Your task to perform on an android device: Show the shopping cart on costco. Add "acer nitro" to the cart on costco, then select checkout. Image 0: 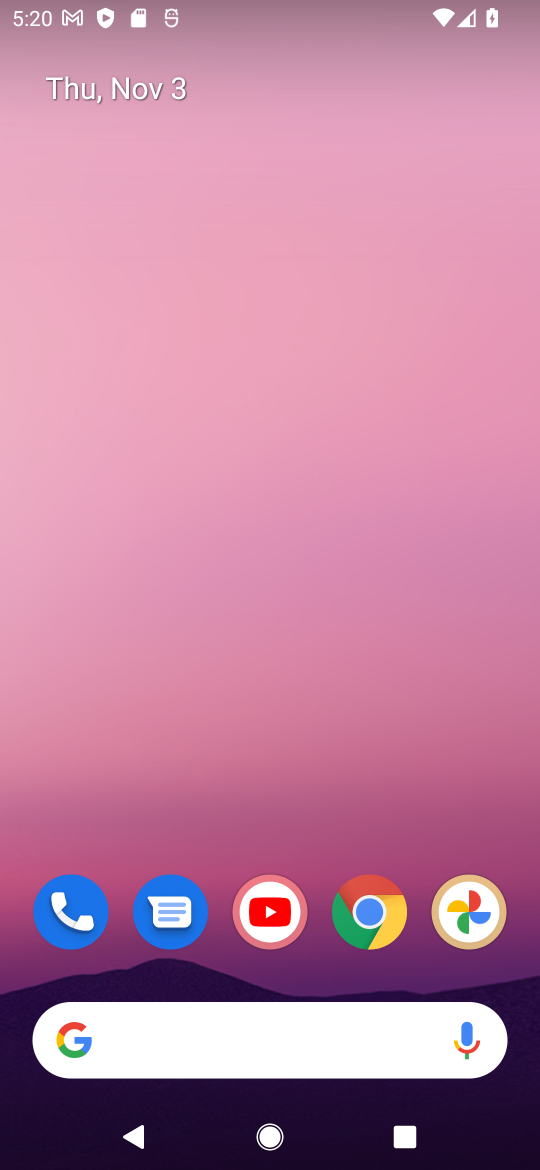
Step 0: click (396, 891)
Your task to perform on an android device: Show the shopping cart on costco. Add "acer nitro" to the cart on costco, then select checkout. Image 1: 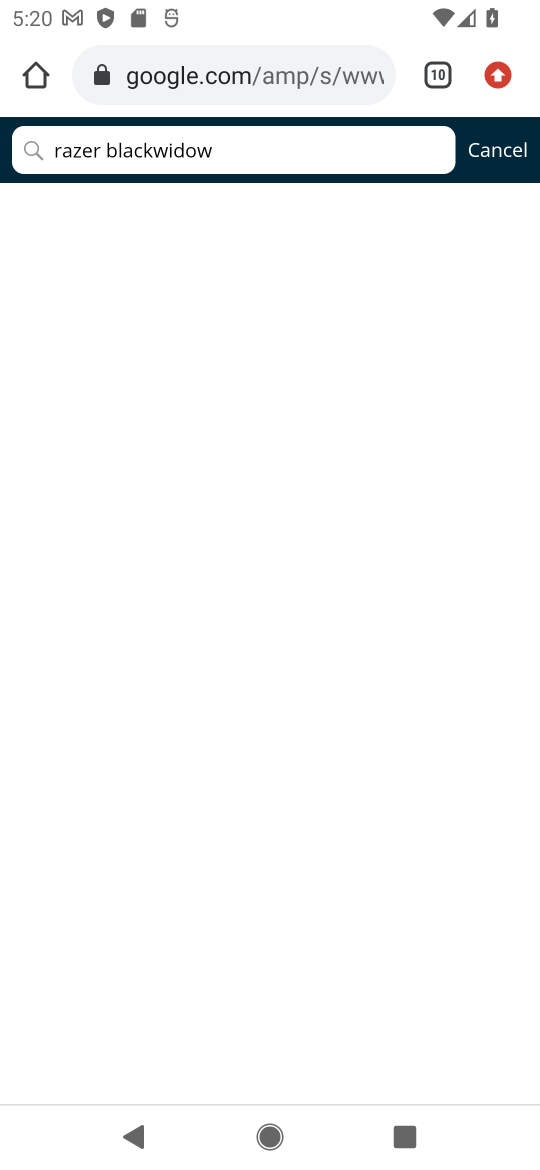
Step 1: click (435, 70)
Your task to perform on an android device: Show the shopping cart on costco. Add "acer nitro" to the cart on costco, then select checkout. Image 2: 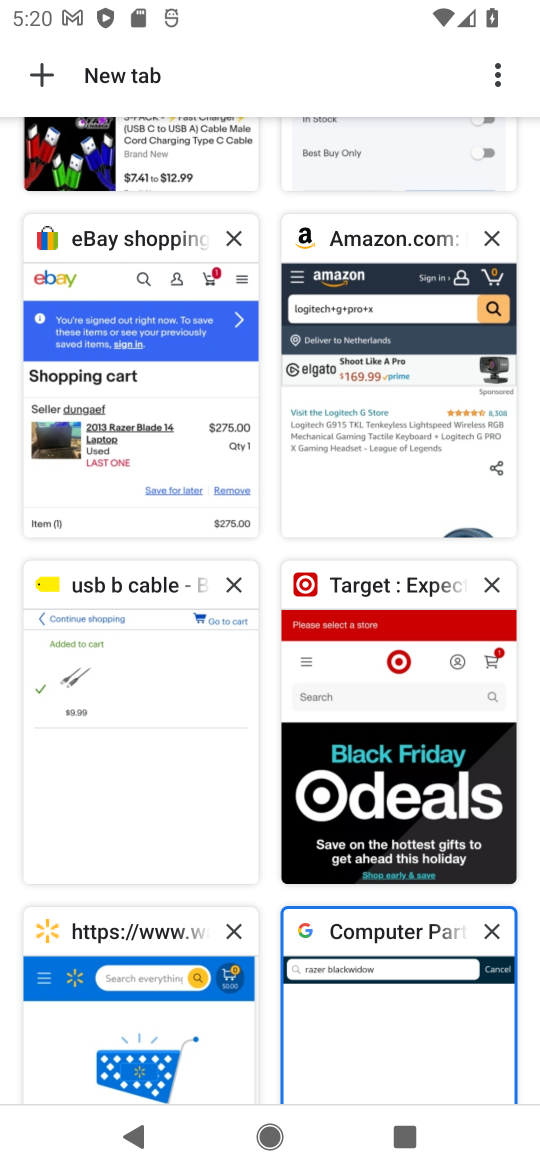
Step 2: click (46, 82)
Your task to perform on an android device: Show the shopping cart on costco. Add "acer nitro" to the cart on costco, then select checkout. Image 3: 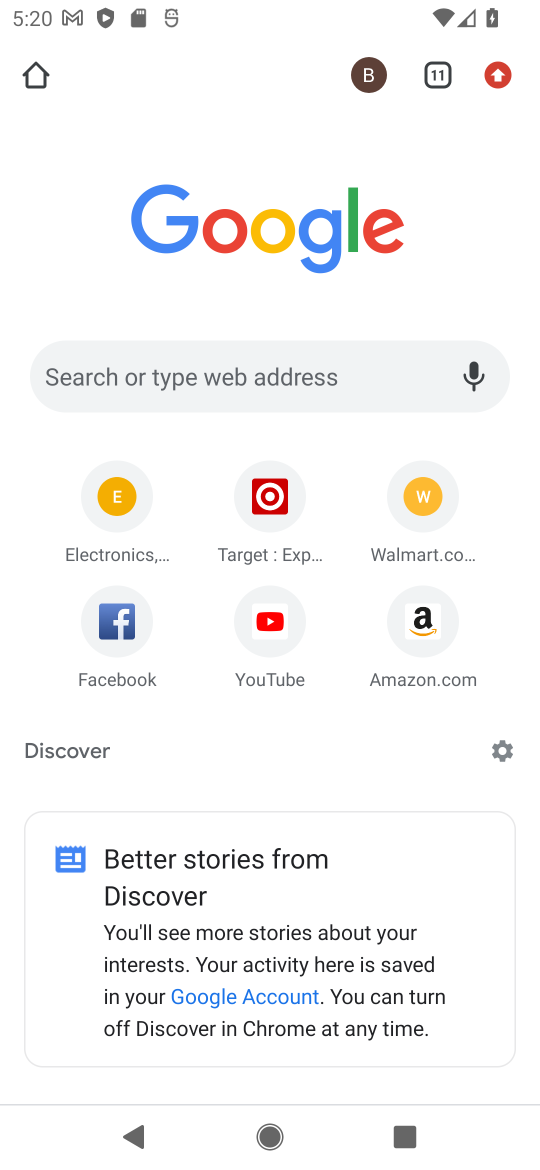
Step 3: click (234, 364)
Your task to perform on an android device: Show the shopping cart on costco. Add "acer nitro" to the cart on costco, then select checkout. Image 4: 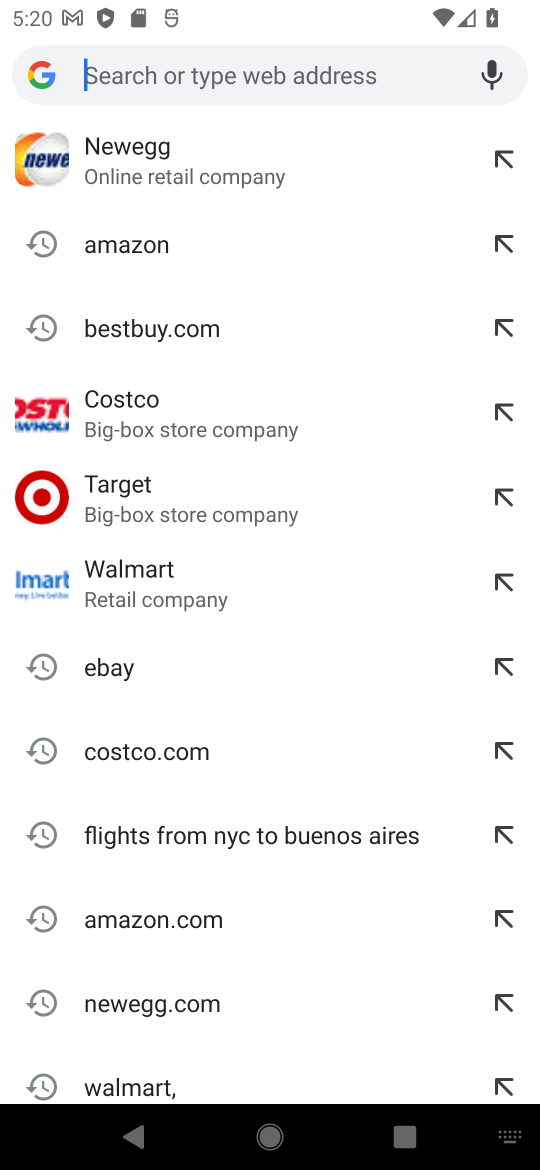
Step 4: click (146, 399)
Your task to perform on an android device: Show the shopping cart on costco. Add "acer nitro" to the cart on costco, then select checkout. Image 5: 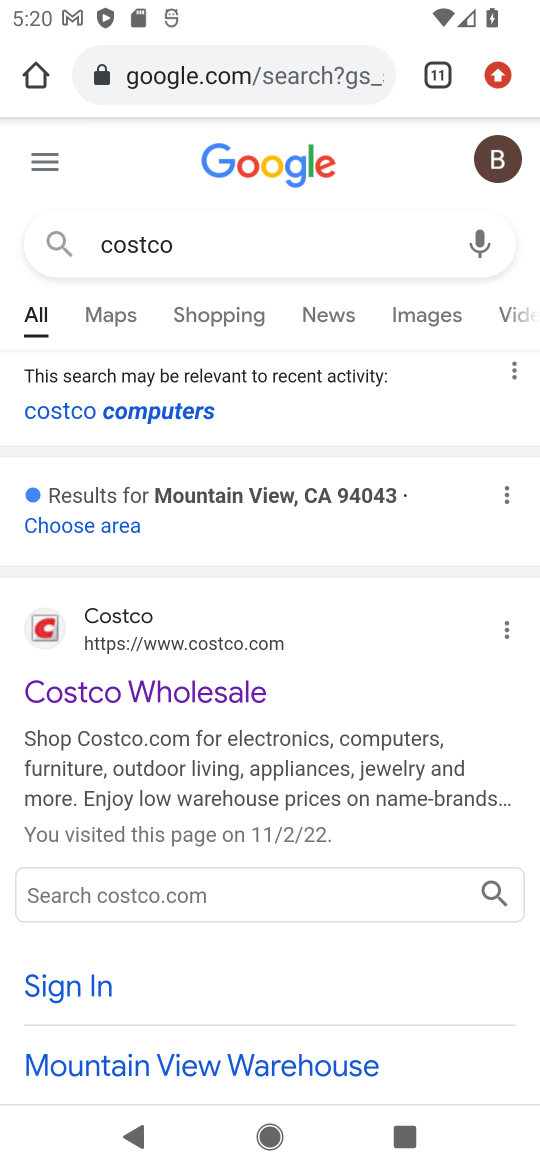
Step 5: click (212, 693)
Your task to perform on an android device: Show the shopping cart on costco. Add "acer nitro" to the cart on costco, then select checkout. Image 6: 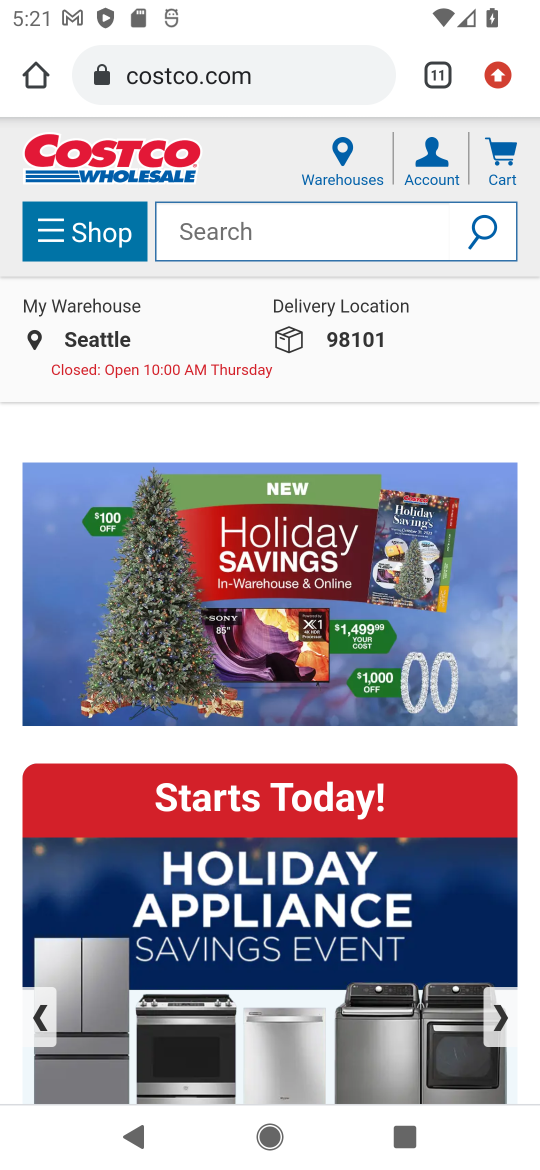
Step 6: click (257, 228)
Your task to perform on an android device: Show the shopping cart on costco. Add "acer nitro" to the cart on costco, then select checkout. Image 7: 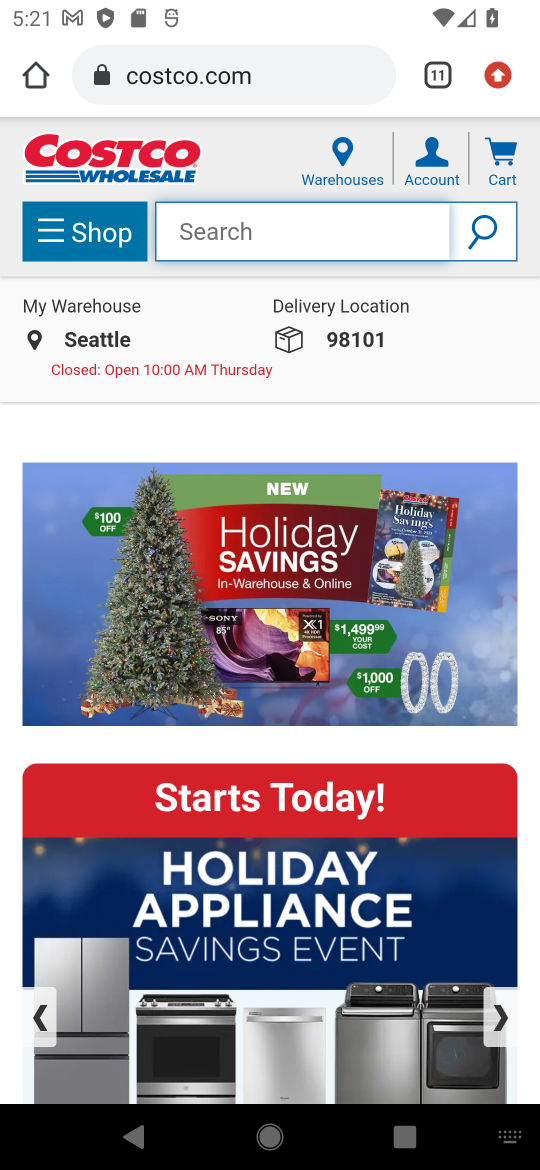
Step 7: type "acer nitro"
Your task to perform on an android device: Show the shopping cart on costco. Add "acer nitro" to the cart on costco, then select checkout. Image 8: 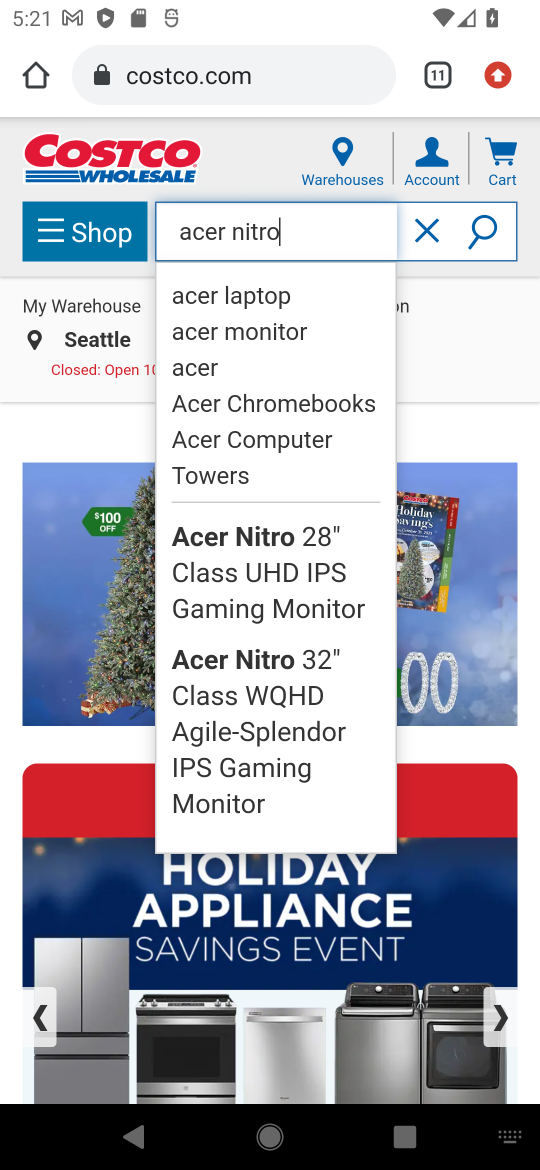
Step 8: click (315, 573)
Your task to perform on an android device: Show the shopping cart on costco. Add "acer nitro" to the cart on costco, then select checkout. Image 9: 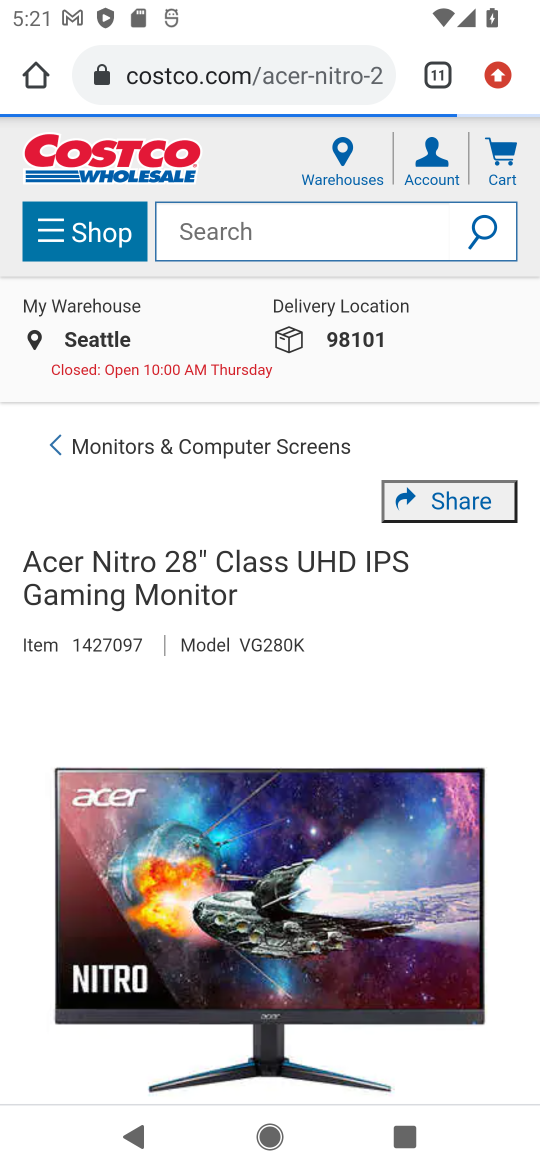
Step 9: drag from (287, 870) to (379, 342)
Your task to perform on an android device: Show the shopping cart on costco. Add "acer nitro" to the cart on costco, then select checkout. Image 10: 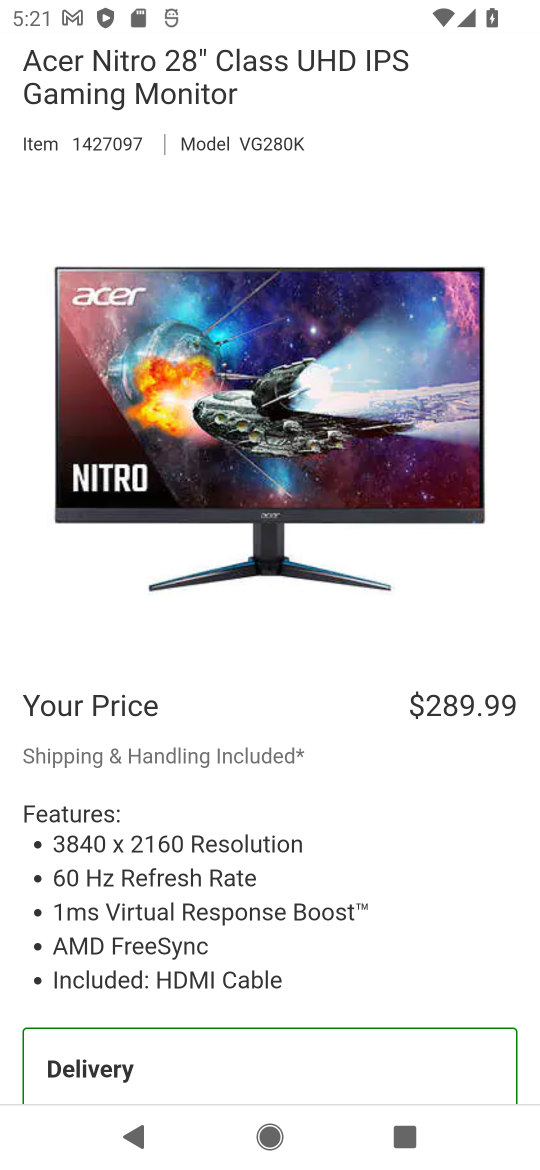
Step 10: drag from (295, 994) to (397, 274)
Your task to perform on an android device: Show the shopping cart on costco. Add "acer nitro" to the cart on costco, then select checkout. Image 11: 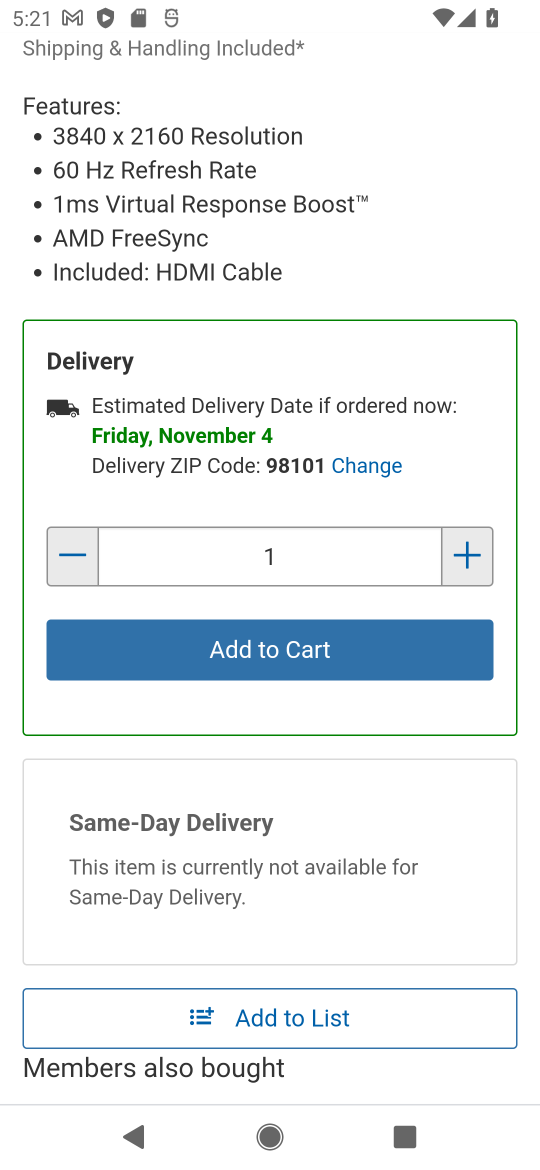
Step 11: click (273, 659)
Your task to perform on an android device: Show the shopping cart on costco. Add "acer nitro" to the cart on costco, then select checkout. Image 12: 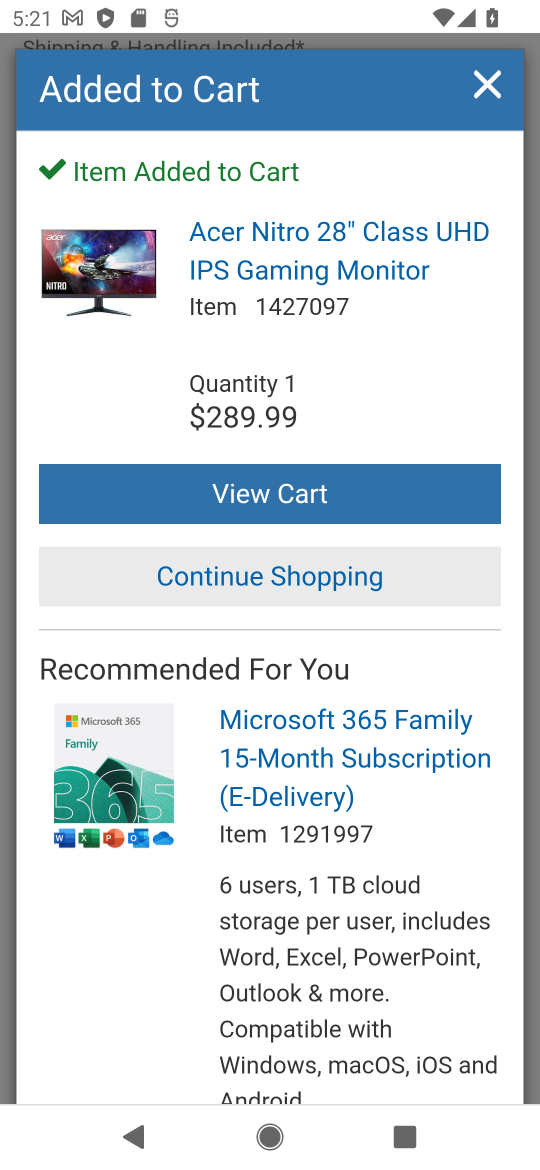
Step 12: click (281, 491)
Your task to perform on an android device: Show the shopping cart on costco. Add "acer nitro" to the cart on costco, then select checkout. Image 13: 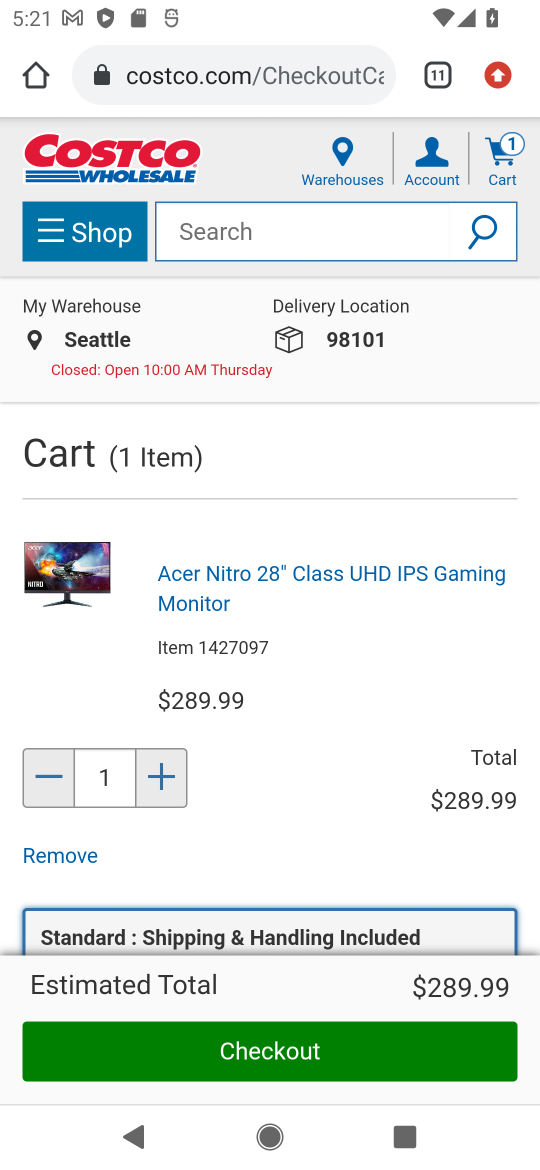
Step 13: click (314, 1052)
Your task to perform on an android device: Show the shopping cart on costco. Add "acer nitro" to the cart on costco, then select checkout. Image 14: 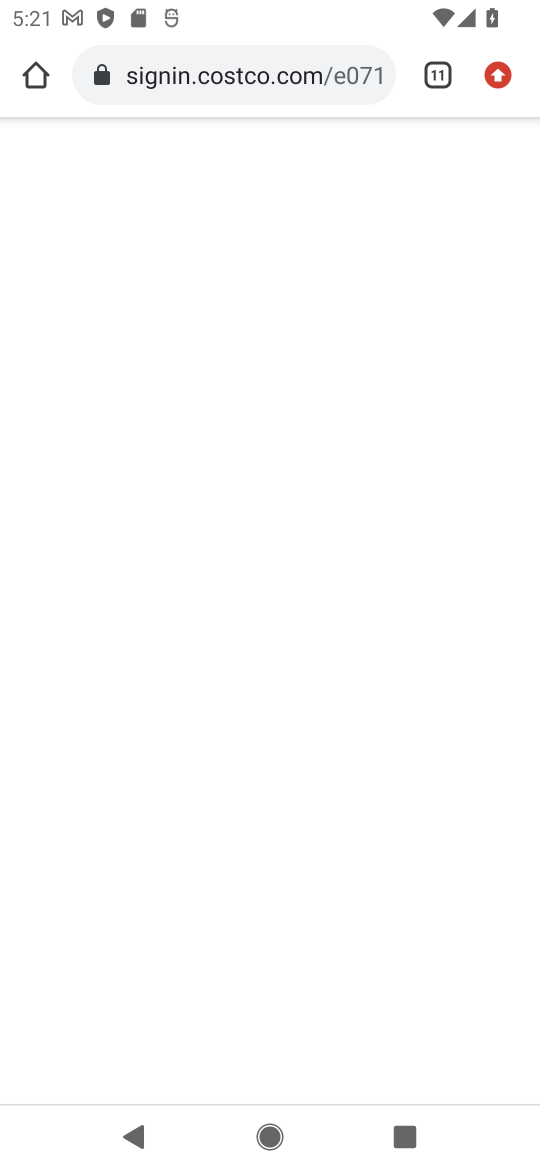
Step 14: task complete